Your task to perform on an android device: open chrome and create a bookmark for the current page Image 0: 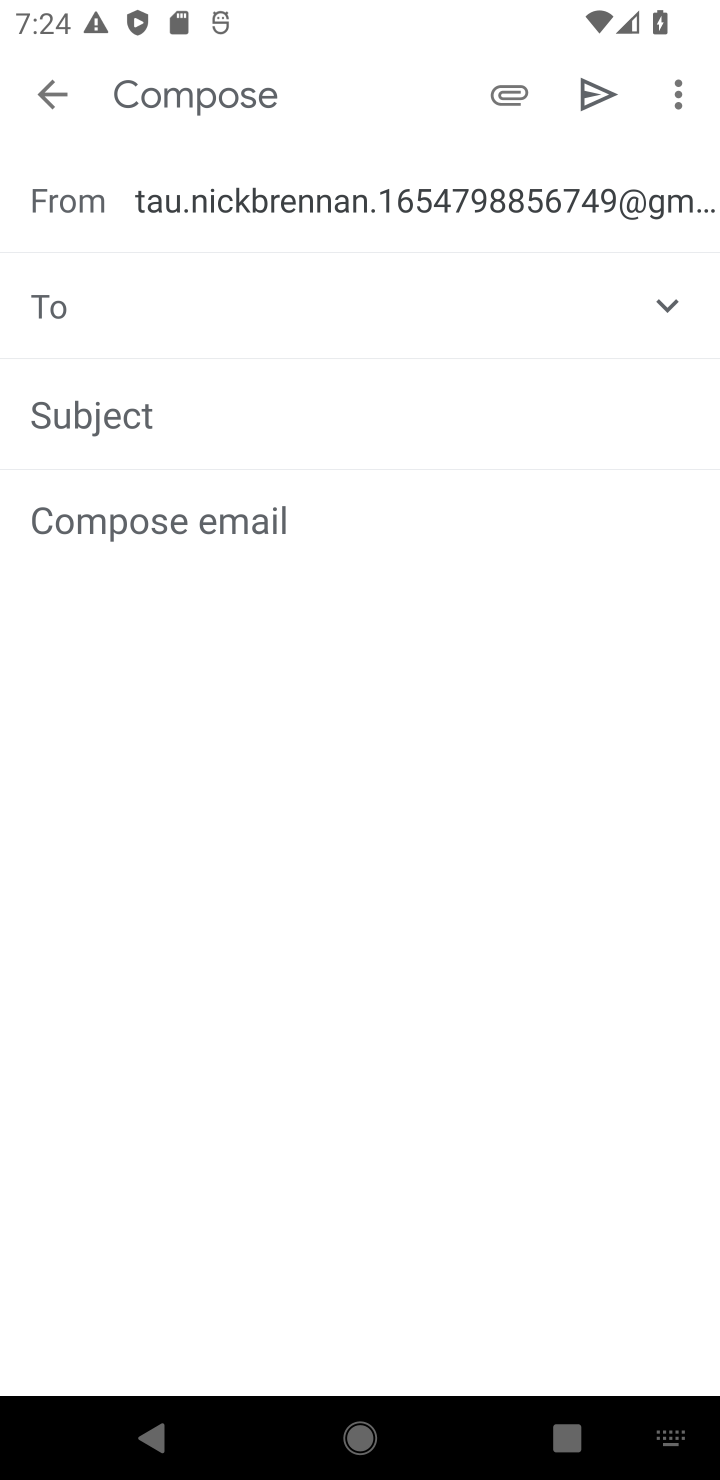
Step 0: press home button
Your task to perform on an android device: open chrome and create a bookmark for the current page Image 1: 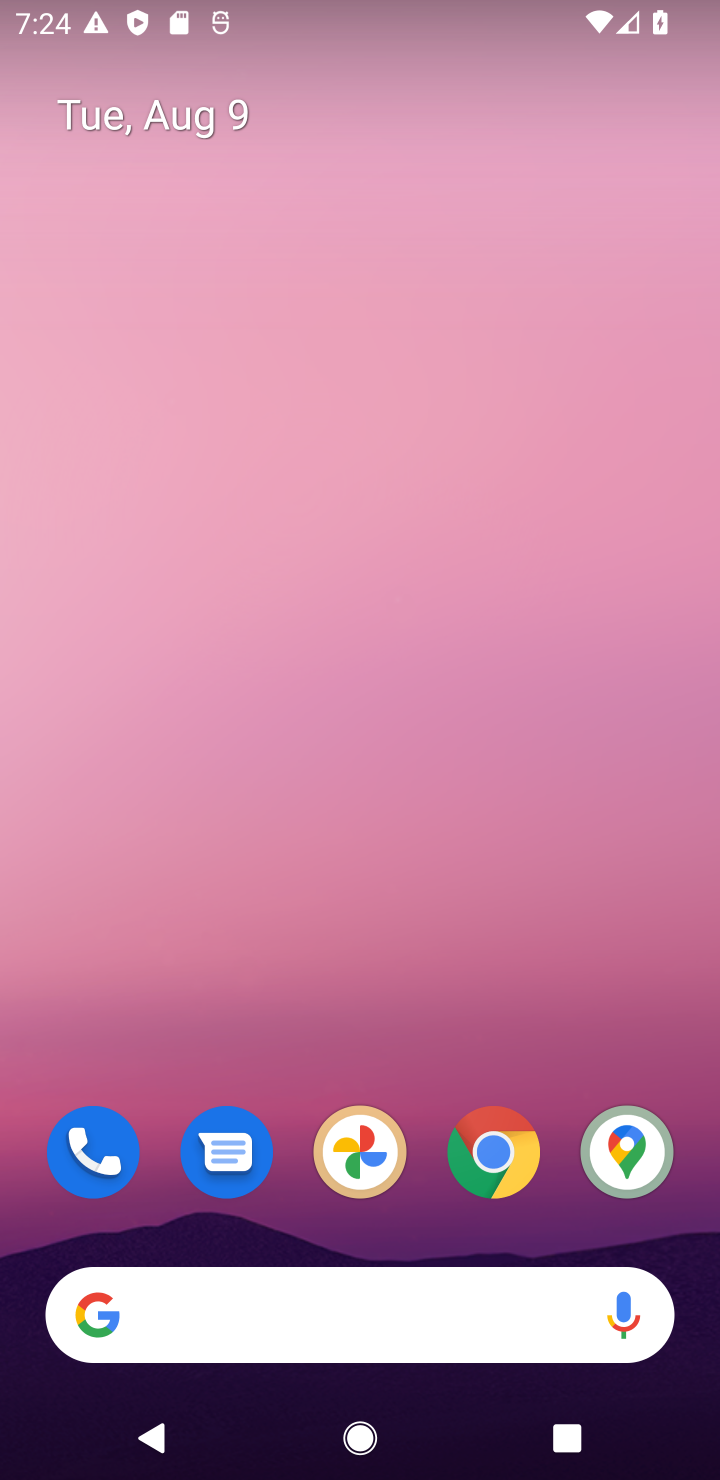
Step 1: click (485, 1140)
Your task to perform on an android device: open chrome and create a bookmark for the current page Image 2: 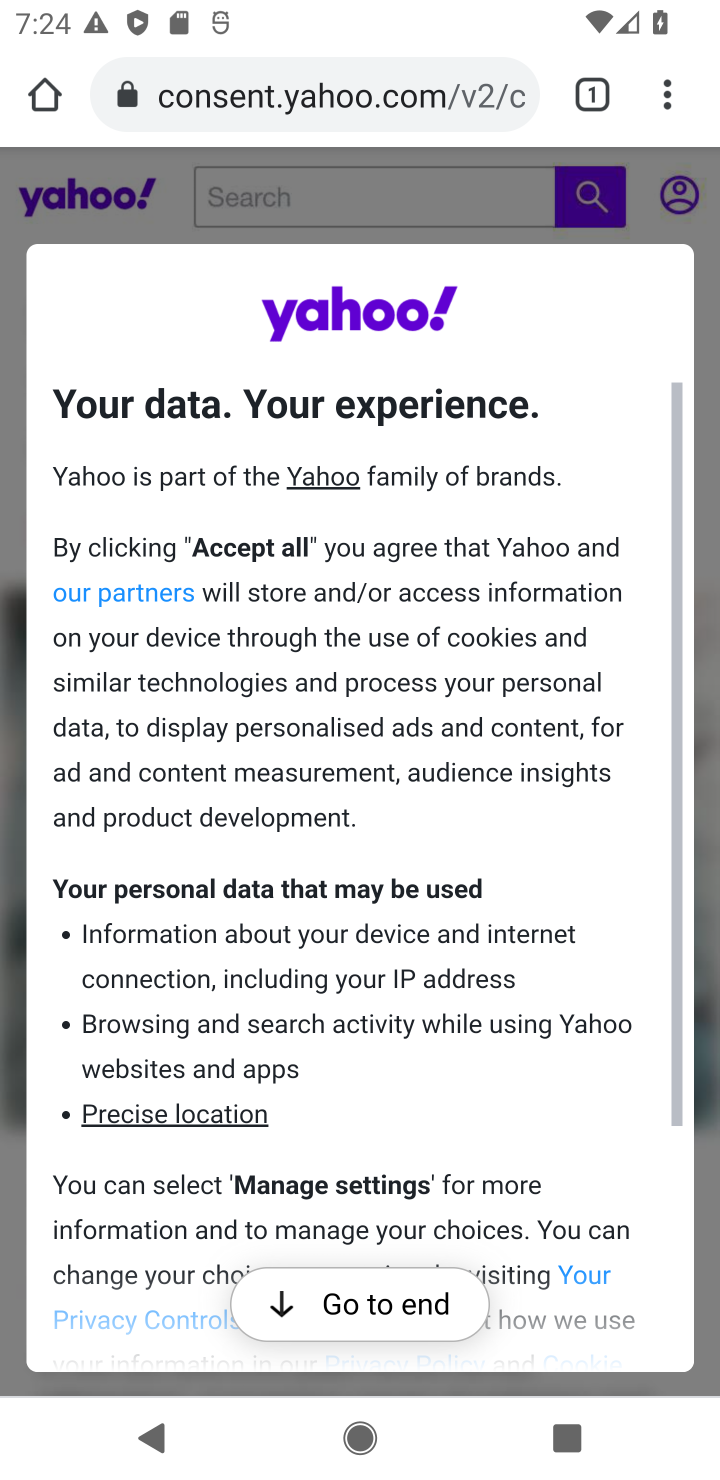
Step 2: click (693, 87)
Your task to perform on an android device: open chrome and create a bookmark for the current page Image 3: 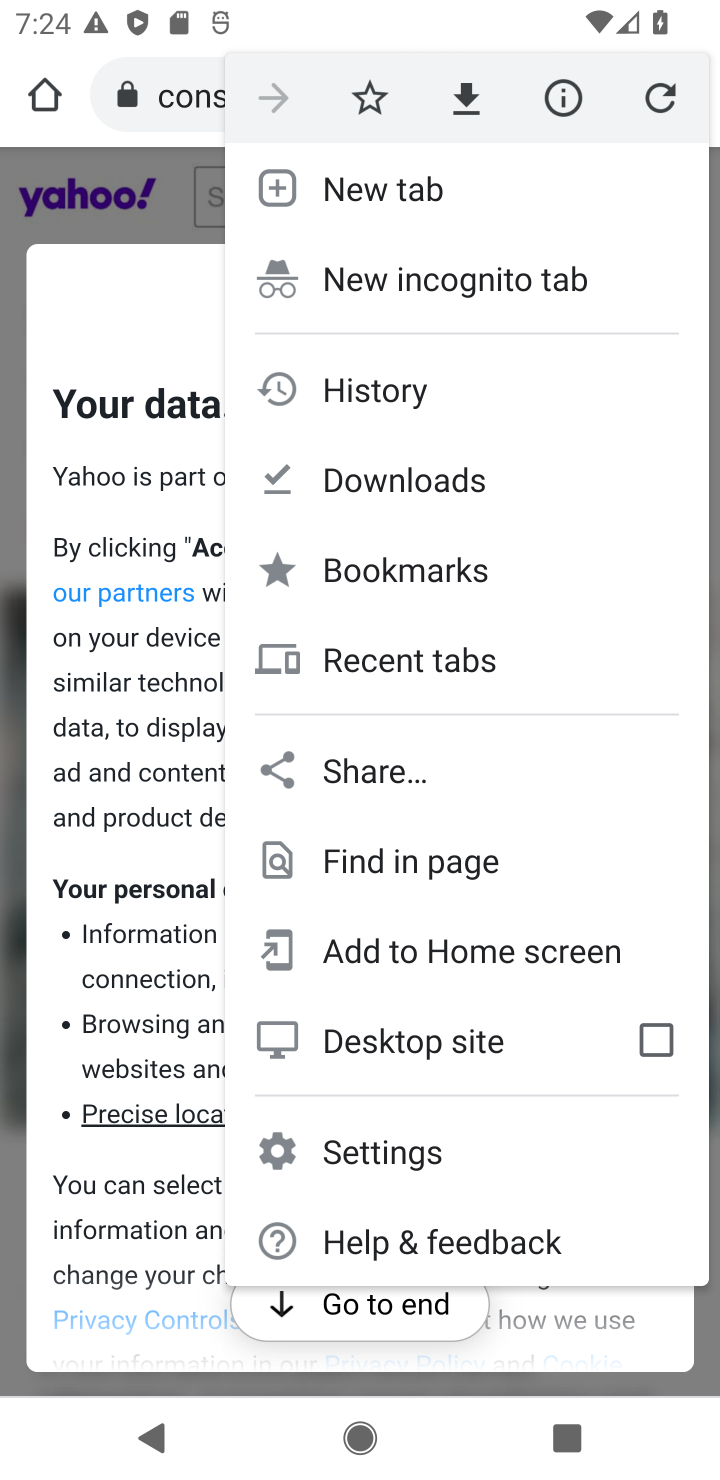
Step 3: click (382, 97)
Your task to perform on an android device: open chrome and create a bookmark for the current page Image 4: 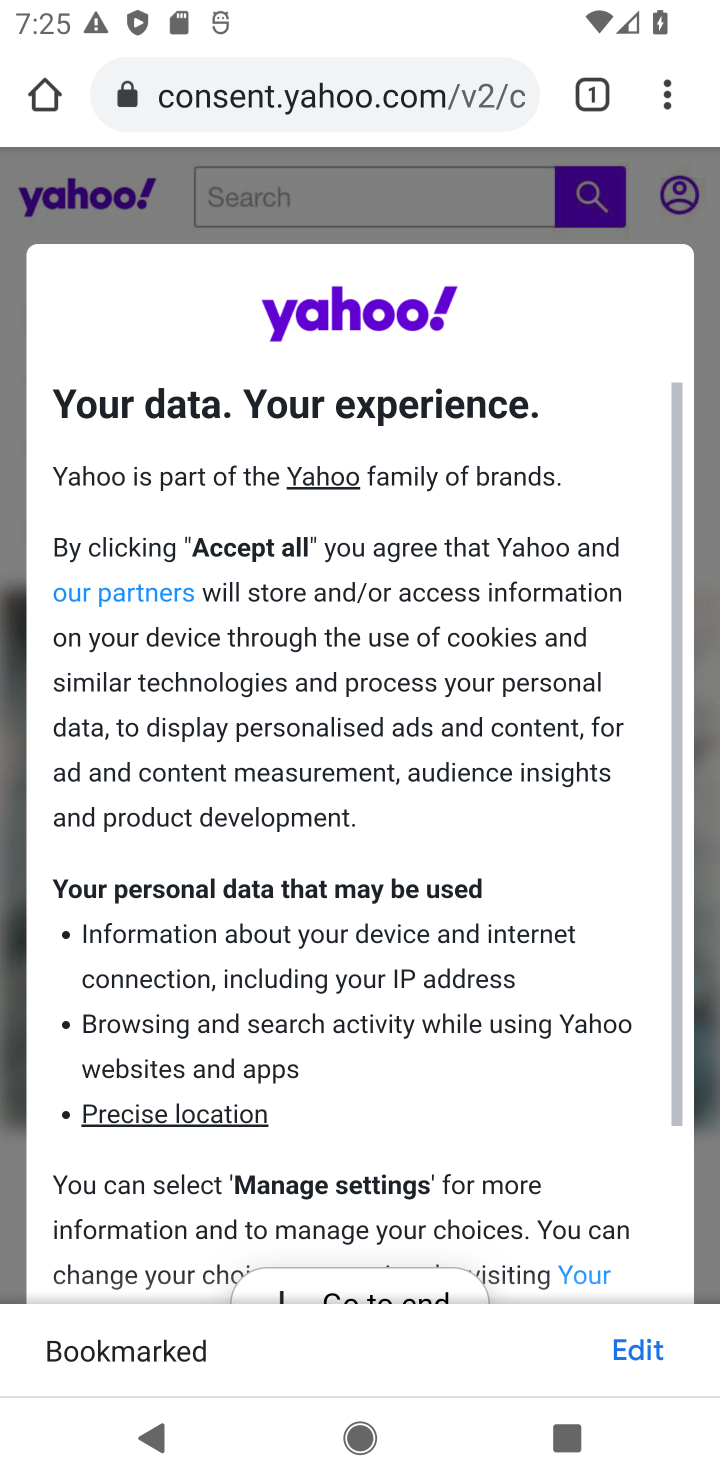
Step 4: task complete